Your task to perform on an android device: add a label to a message in the gmail app Image 0: 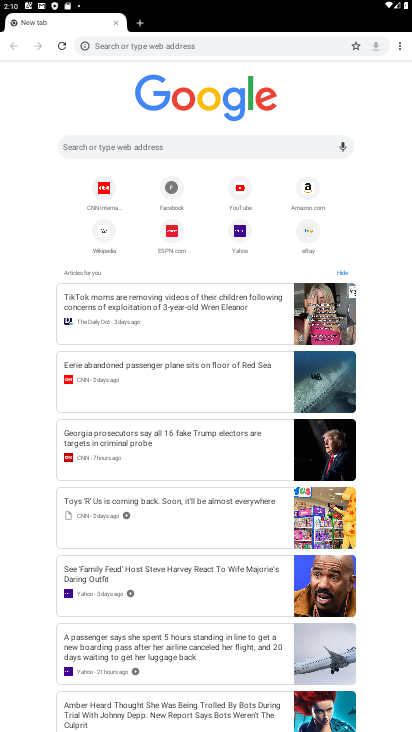
Step 0: press home button
Your task to perform on an android device: add a label to a message in the gmail app Image 1: 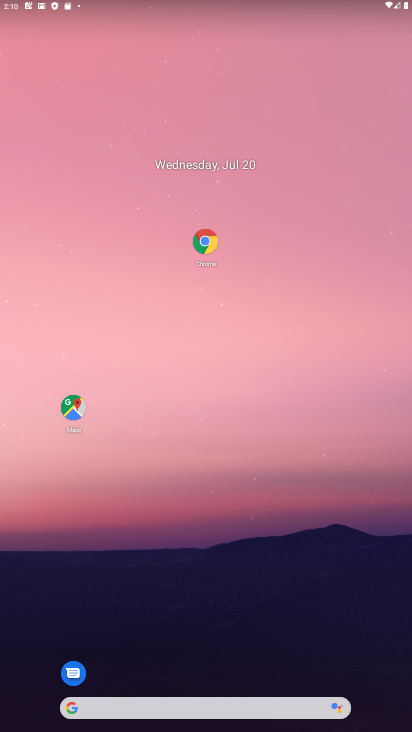
Step 1: drag from (218, 676) to (278, 113)
Your task to perform on an android device: add a label to a message in the gmail app Image 2: 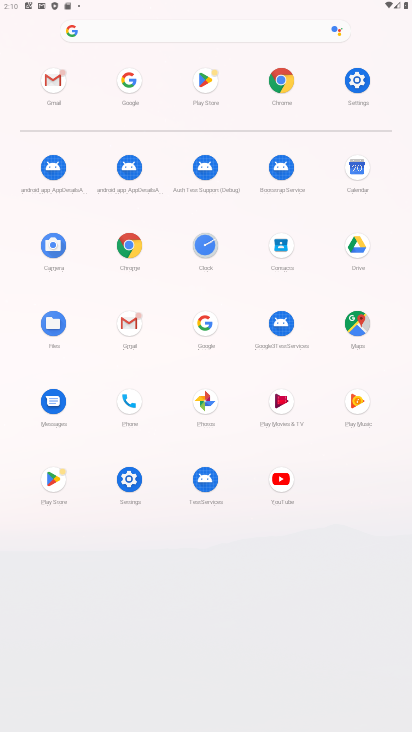
Step 2: click (127, 323)
Your task to perform on an android device: add a label to a message in the gmail app Image 3: 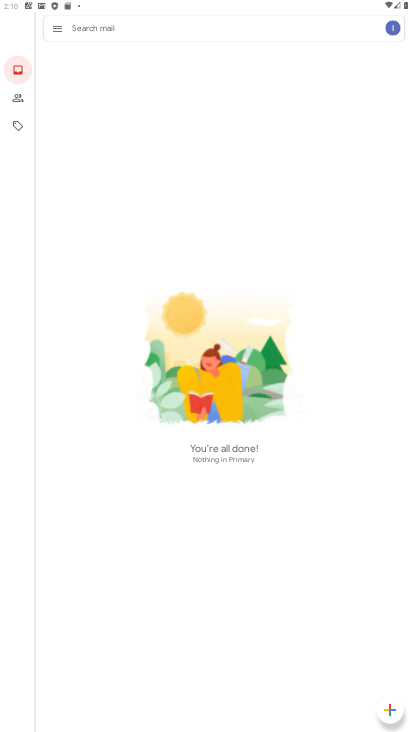
Step 3: click (52, 35)
Your task to perform on an android device: add a label to a message in the gmail app Image 4: 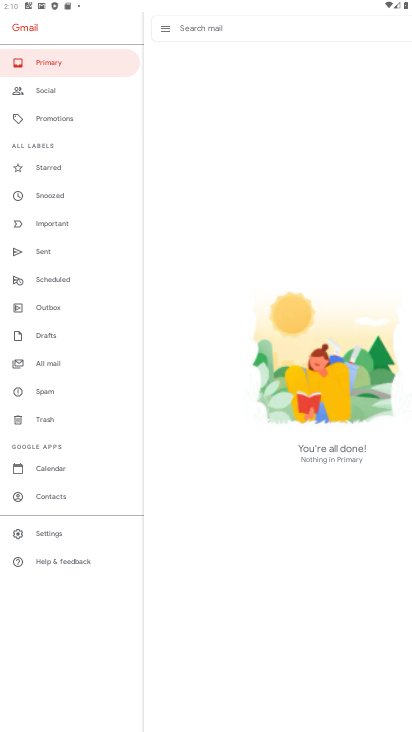
Step 4: click (51, 369)
Your task to perform on an android device: add a label to a message in the gmail app Image 5: 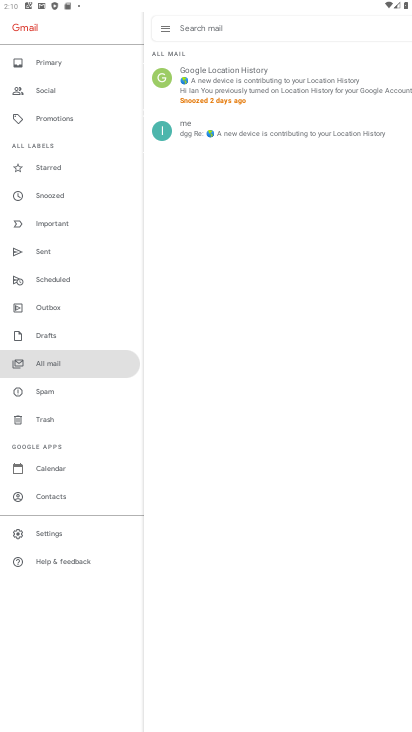
Step 5: click (244, 123)
Your task to perform on an android device: add a label to a message in the gmail app Image 6: 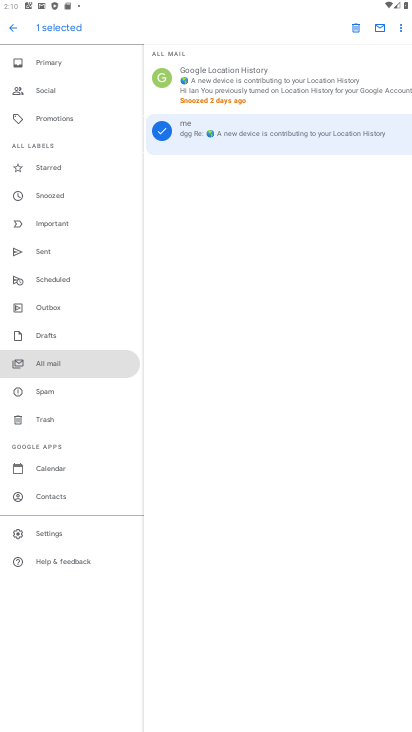
Step 6: drag from (279, 315) to (31, 250)
Your task to perform on an android device: add a label to a message in the gmail app Image 7: 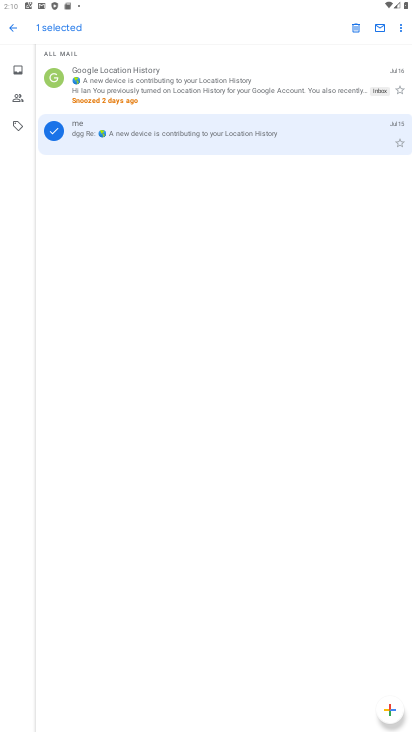
Step 7: click (394, 32)
Your task to perform on an android device: add a label to a message in the gmail app Image 8: 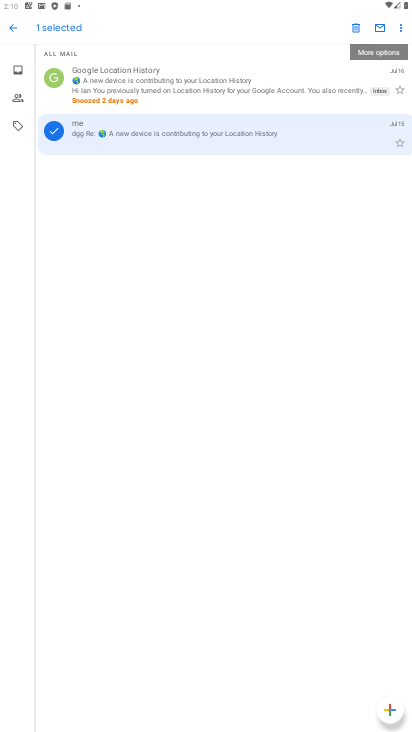
Step 8: click (399, 32)
Your task to perform on an android device: add a label to a message in the gmail app Image 9: 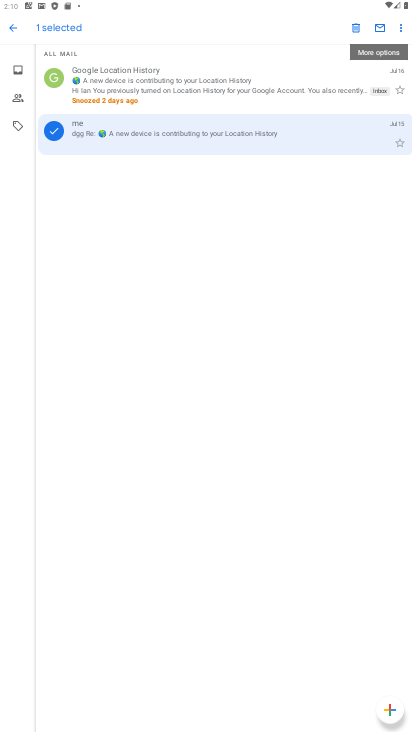
Step 9: click (395, 25)
Your task to perform on an android device: add a label to a message in the gmail app Image 10: 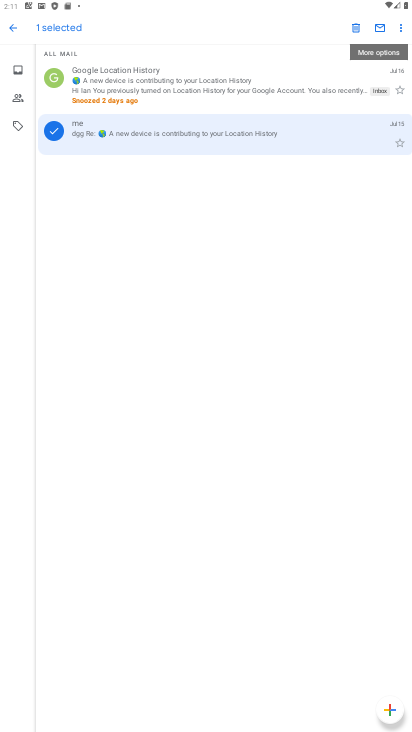
Step 10: click (395, 25)
Your task to perform on an android device: add a label to a message in the gmail app Image 11: 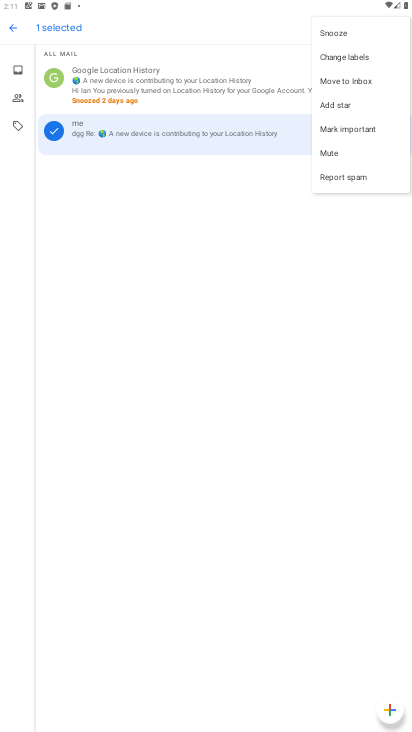
Step 11: click (352, 60)
Your task to perform on an android device: add a label to a message in the gmail app Image 12: 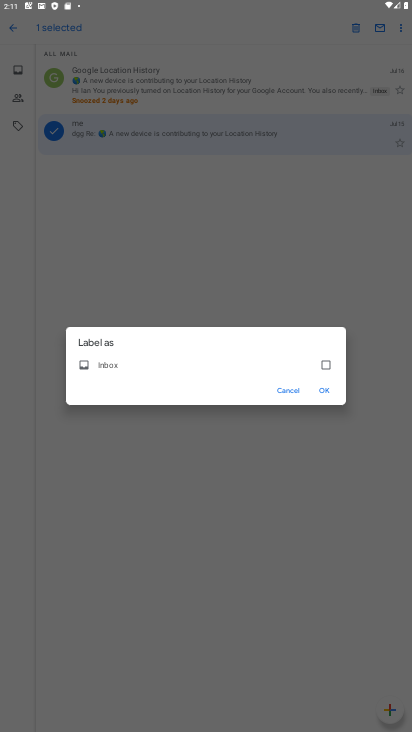
Step 12: click (322, 390)
Your task to perform on an android device: add a label to a message in the gmail app Image 13: 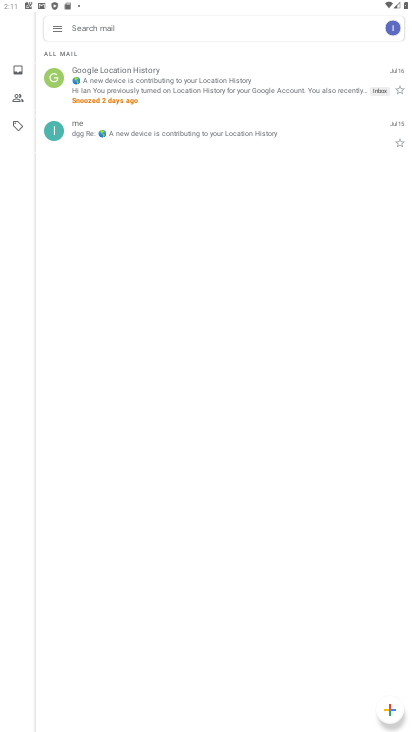
Step 13: task complete